Your task to perform on an android device: see sites visited before in the chrome app Image 0: 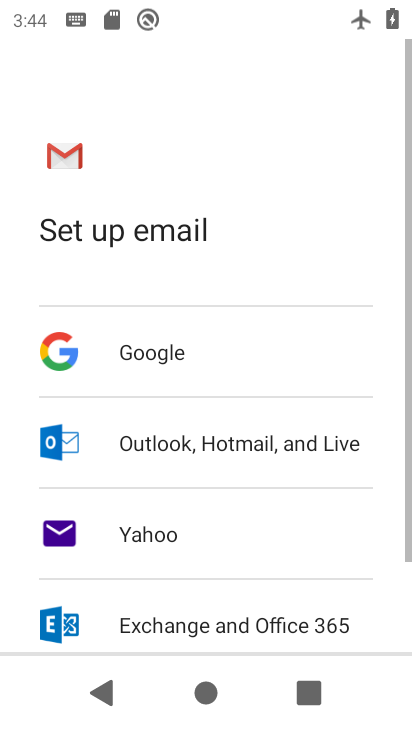
Step 0: press home button
Your task to perform on an android device: see sites visited before in the chrome app Image 1: 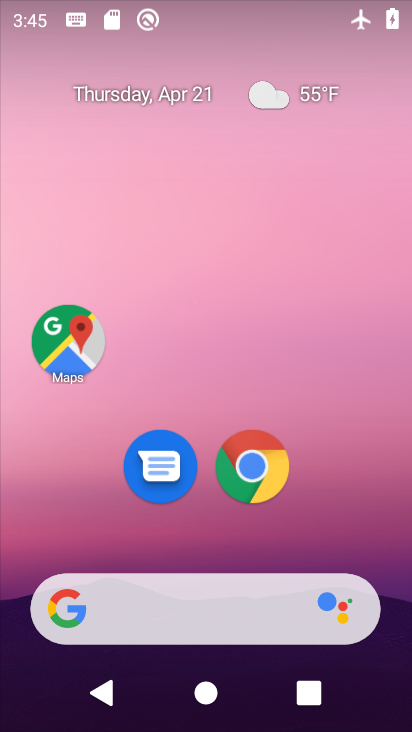
Step 1: click (255, 474)
Your task to perform on an android device: see sites visited before in the chrome app Image 2: 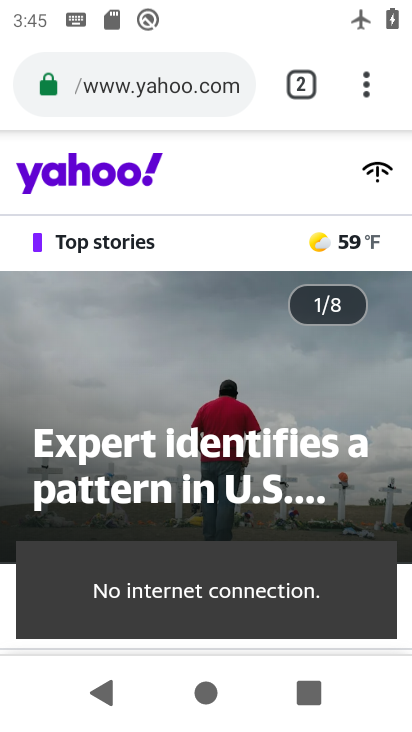
Step 2: click (371, 91)
Your task to perform on an android device: see sites visited before in the chrome app Image 3: 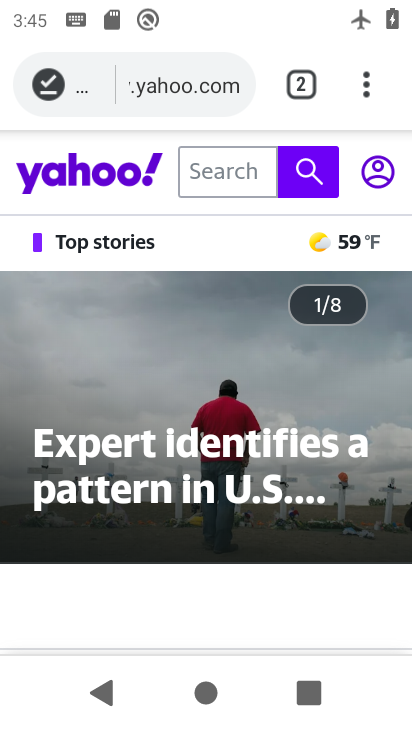
Step 3: click (365, 78)
Your task to perform on an android device: see sites visited before in the chrome app Image 4: 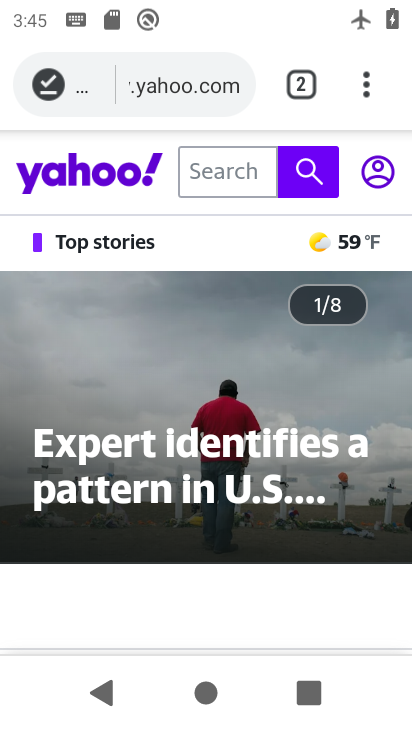
Step 4: click (365, 78)
Your task to perform on an android device: see sites visited before in the chrome app Image 5: 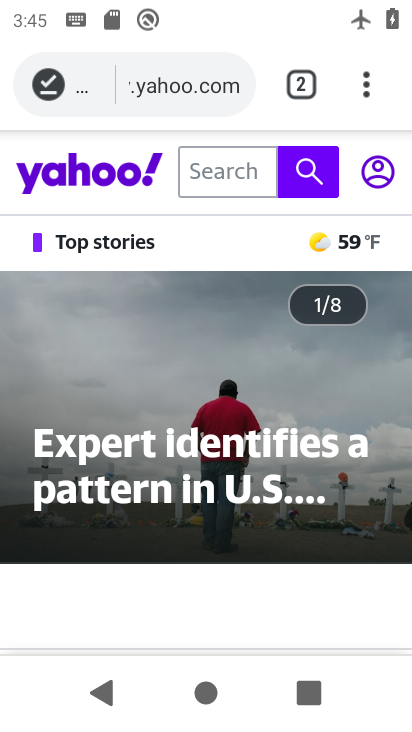
Step 5: click (365, 78)
Your task to perform on an android device: see sites visited before in the chrome app Image 6: 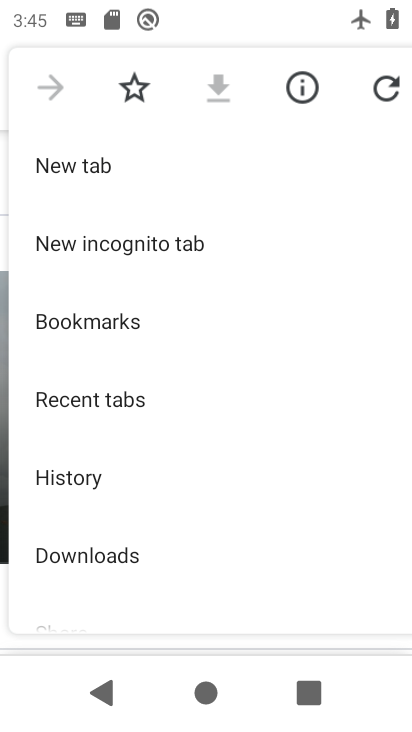
Step 6: drag from (138, 414) to (157, 301)
Your task to perform on an android device: see sites visited before in the chrome app Image 7: 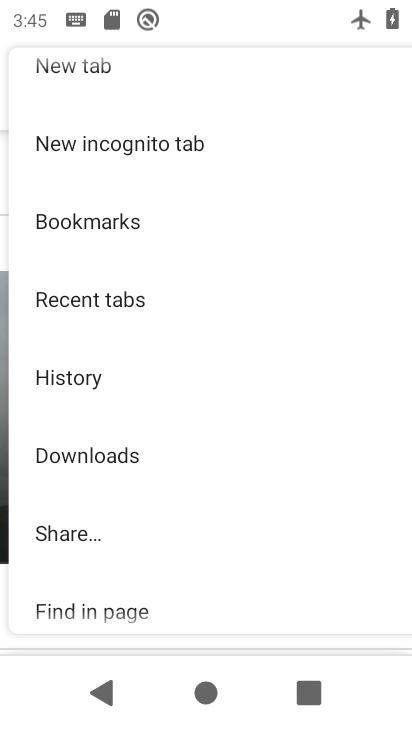
Step 7: click (137, 288)
Your task to perform on an android device: see sites visited before in the chrome app Image 8: 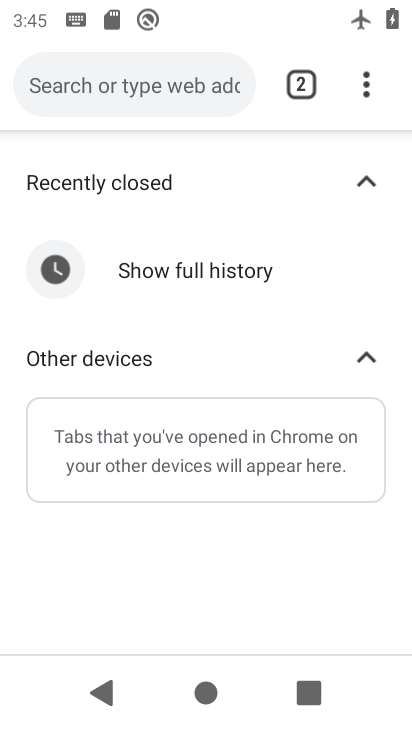
Step 8: task complete